Your task to perform on an android device: clear history in the chrome app Image 0: 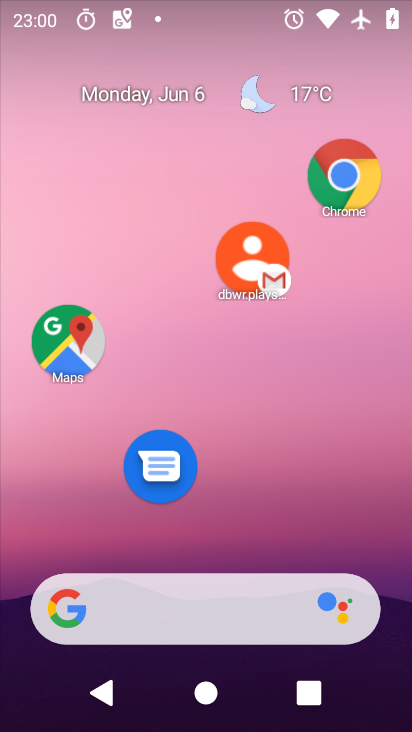
Step 0: drag from (209, 559) to (199, 18)
Your task to perform on an android device: clear history in the chrome app Image 1: 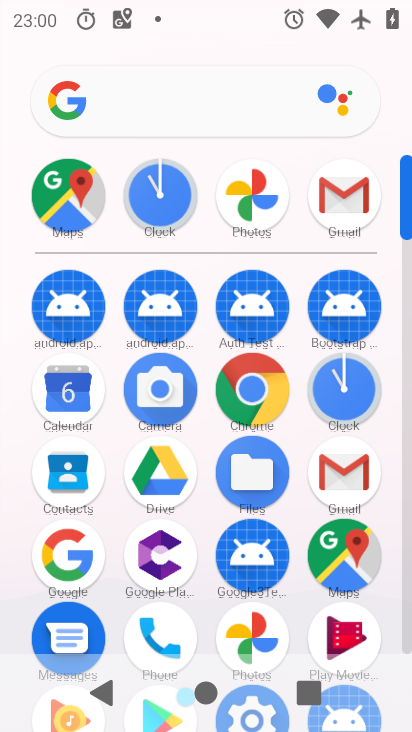
Step 1: click (268, 367)
Your task to perform on an android device: clear history in the chrome app Image 2: 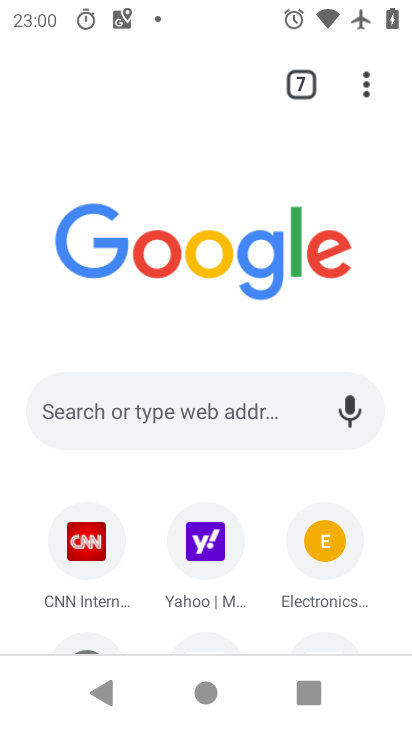
Step 2: click (360, 71)
Your task to perform on an android device: clear history in the chrome app Image 3: 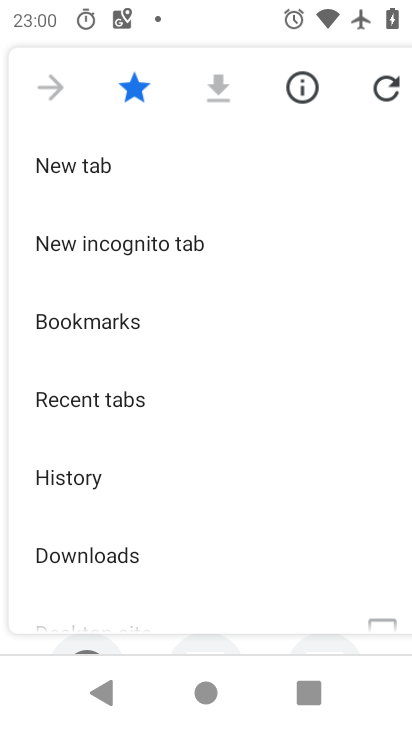
Step 3: click (116, 475)
Your task to perform on an android device: clear history in the chrome app Image 4: 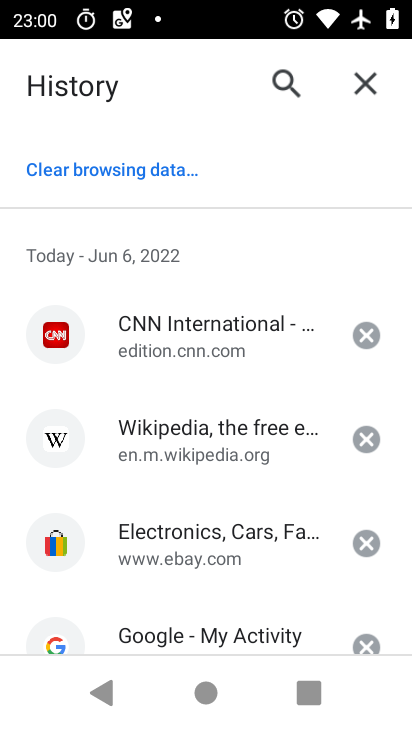
Step 4: click (48, 135)
Your task to perform on an android device: clear history in the chrome app Image 5: 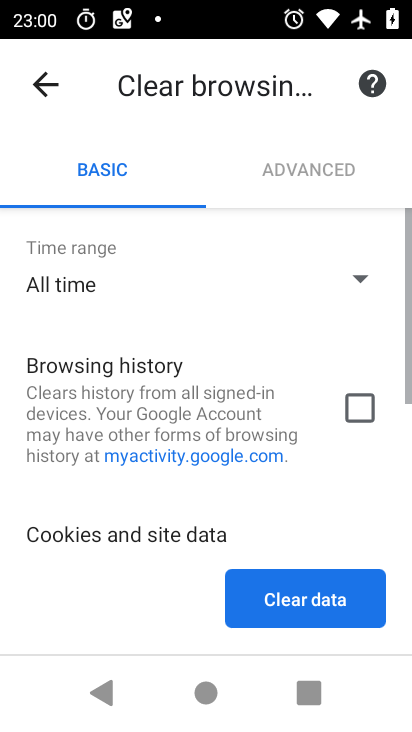
Step 5: click (374, 418)
Your task to perform on an android device: clear history in the chrome app Image 6: 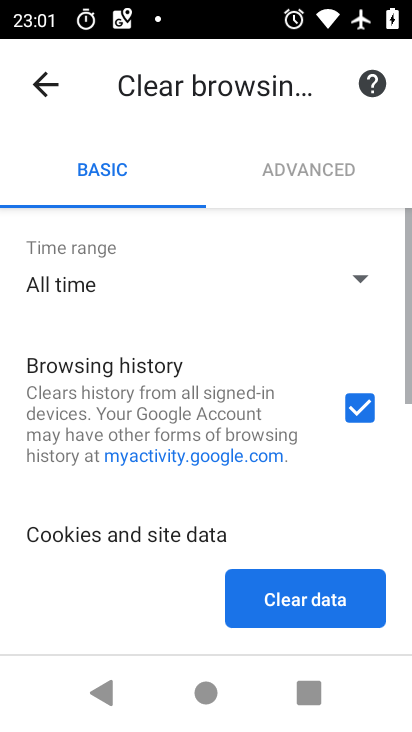
Step 6: click (285, 612)
Your task to perform on an android device: clear history in the chrome app Image 7: 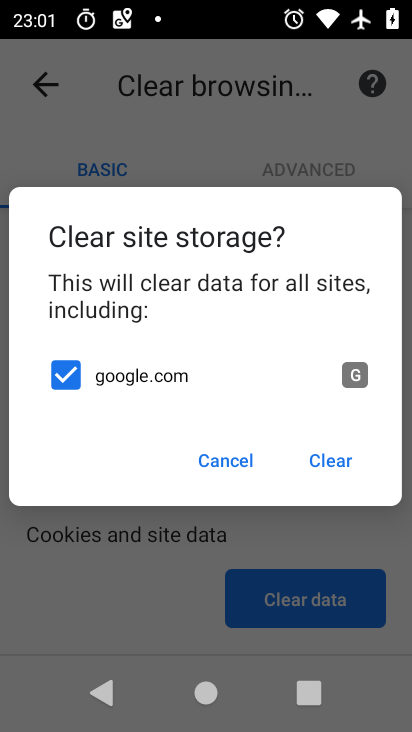
Step 7: click (340, 480)
Your task to perform on an android device: clear history in the chrome app Image 8: 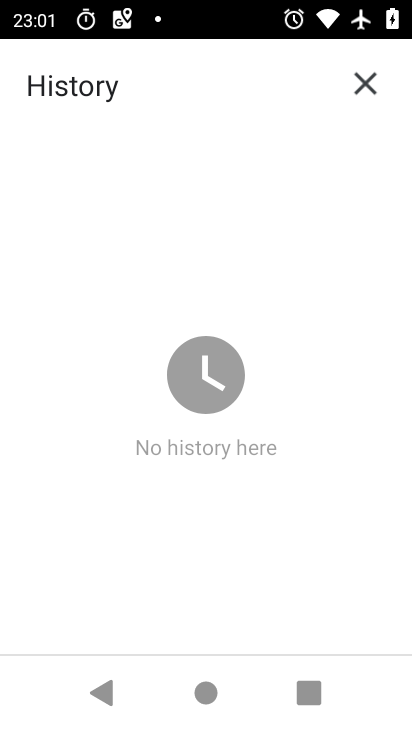
Step 8: task complete